Your task to perform on an android device: install app "Messenger Lite" Image 0: 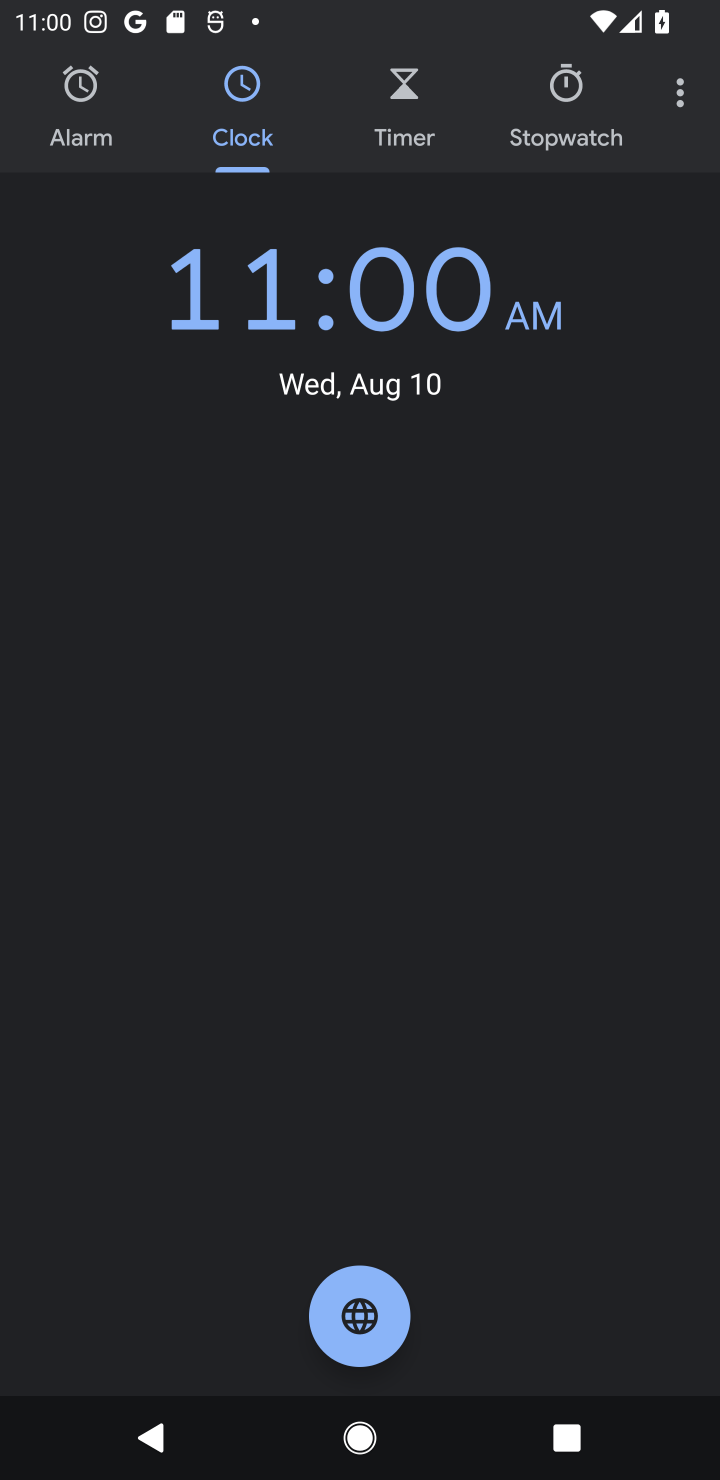
Step 0: press back button
Your task to perform on an android device: install app "Messenger Lite" Image 1: 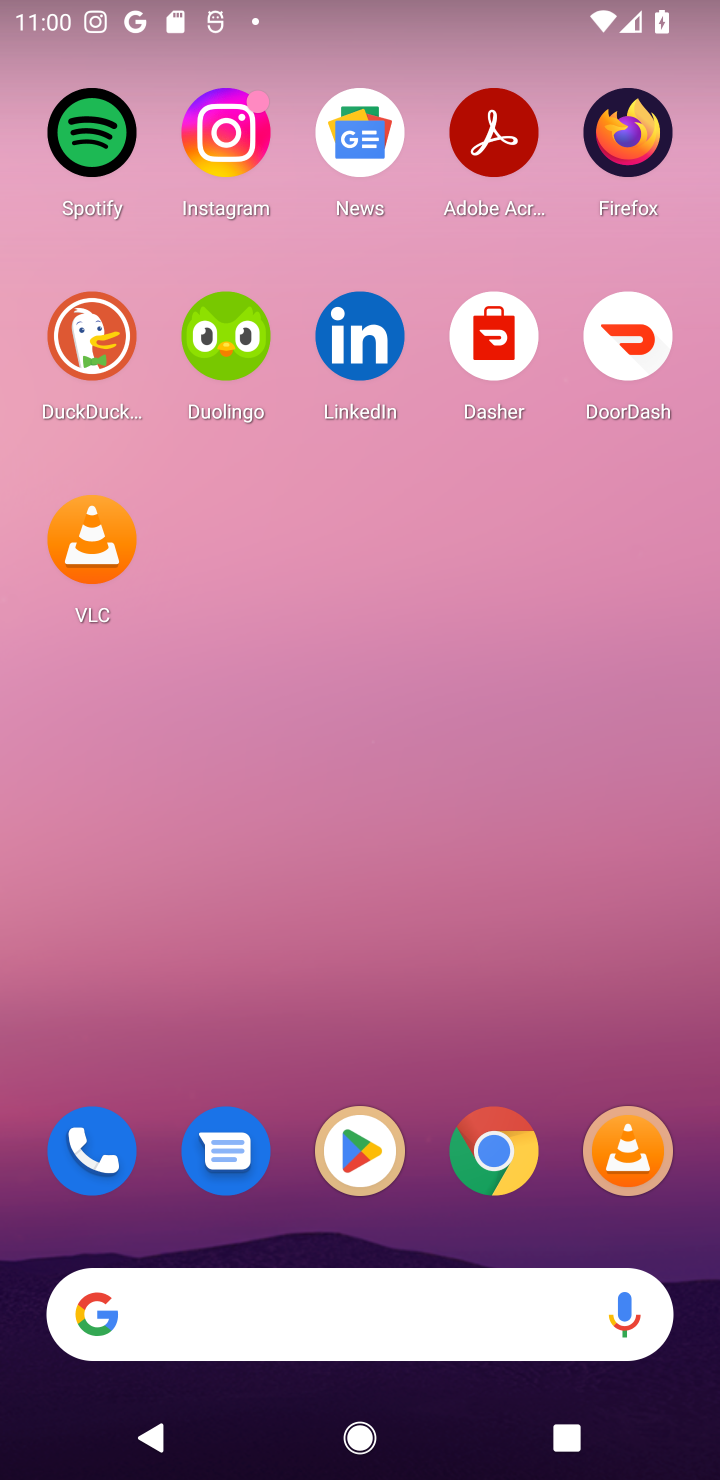
Step 1: drag from (286, 970) to (504, 124)
Your task to perform on an android device: install app "Messenger Lite" Image 2: 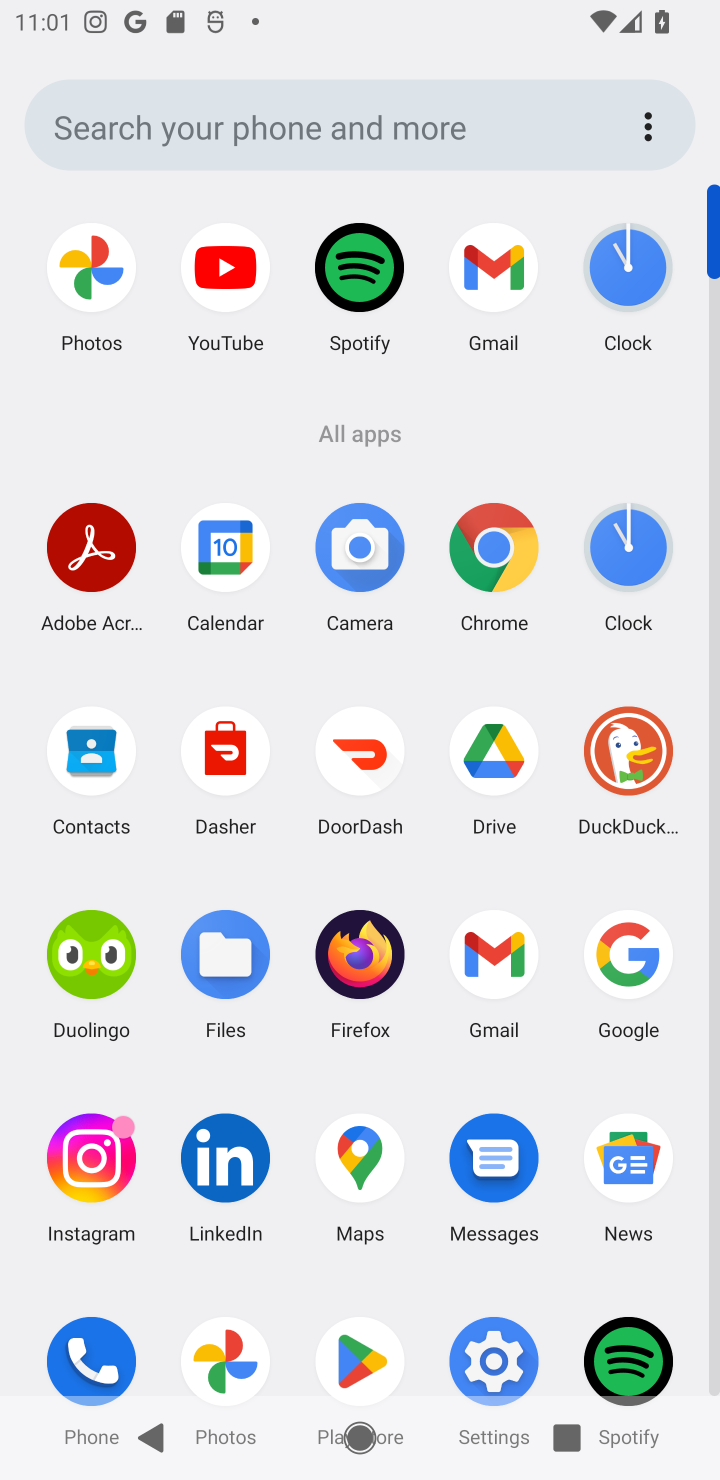
Step 2: drag from (291, 1196) to (397, 268)
Your task to perform on an android device: install app "Messenger Lite" Image 3: 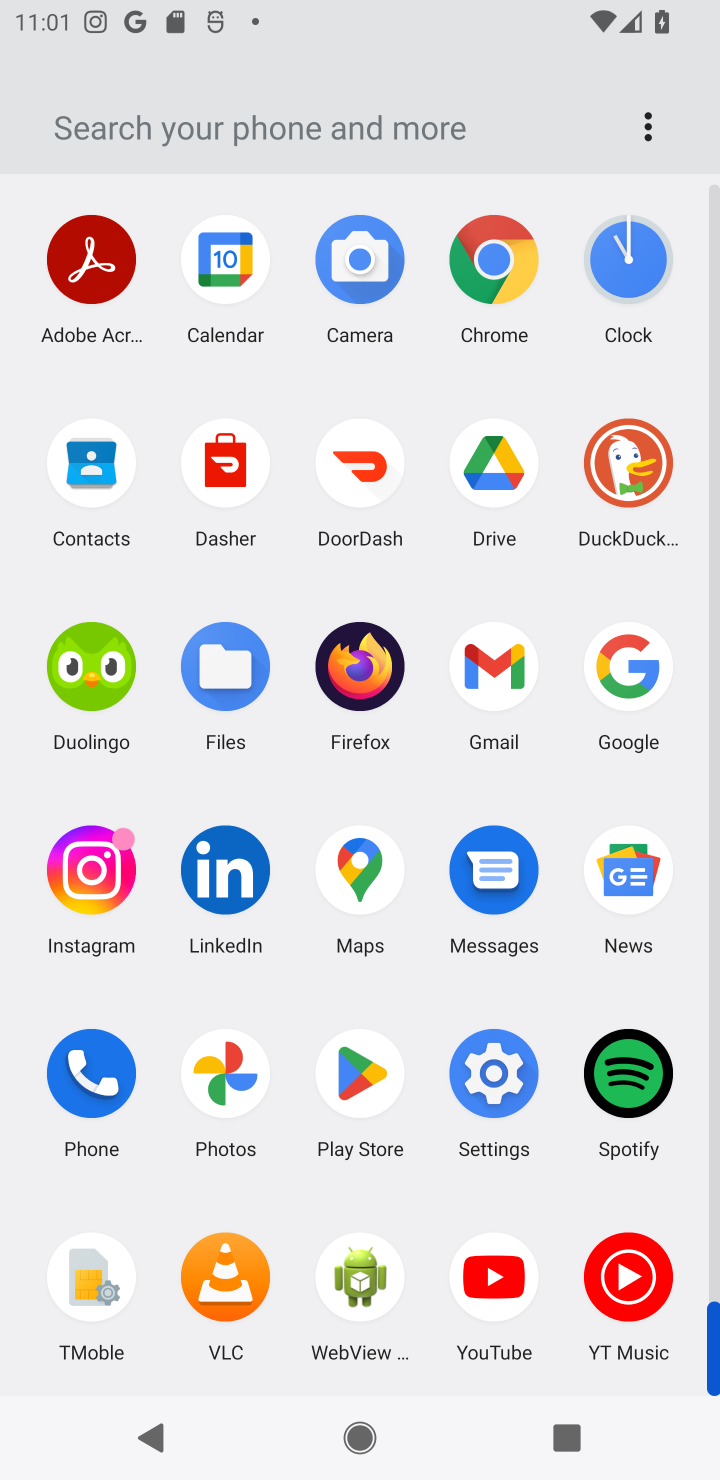
Step 3: click (364, 1078)
Your task to perform on an android device: install app "Messenger Lite" Image 4: 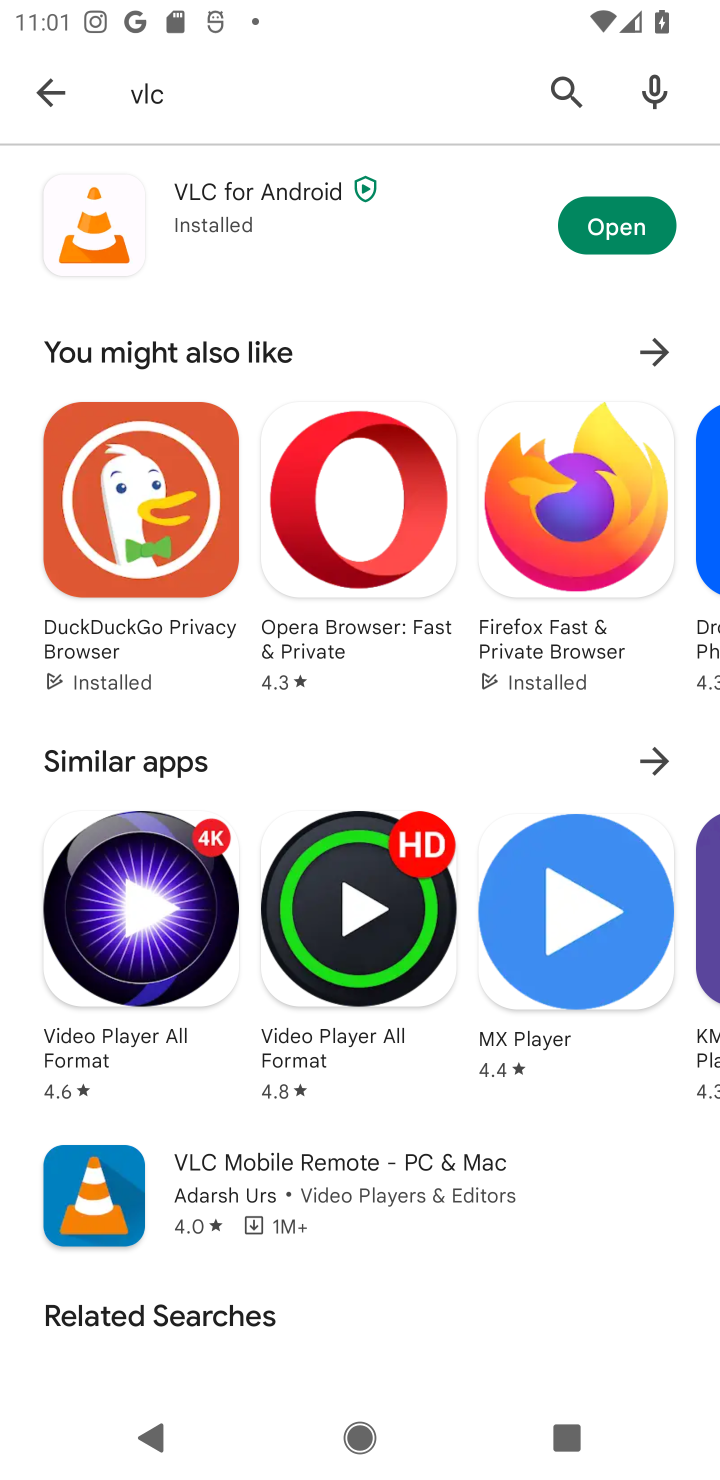
Step 4: click (577, 104)
Your task to perform on an android device: install app "Messenger Lite" Image 5: 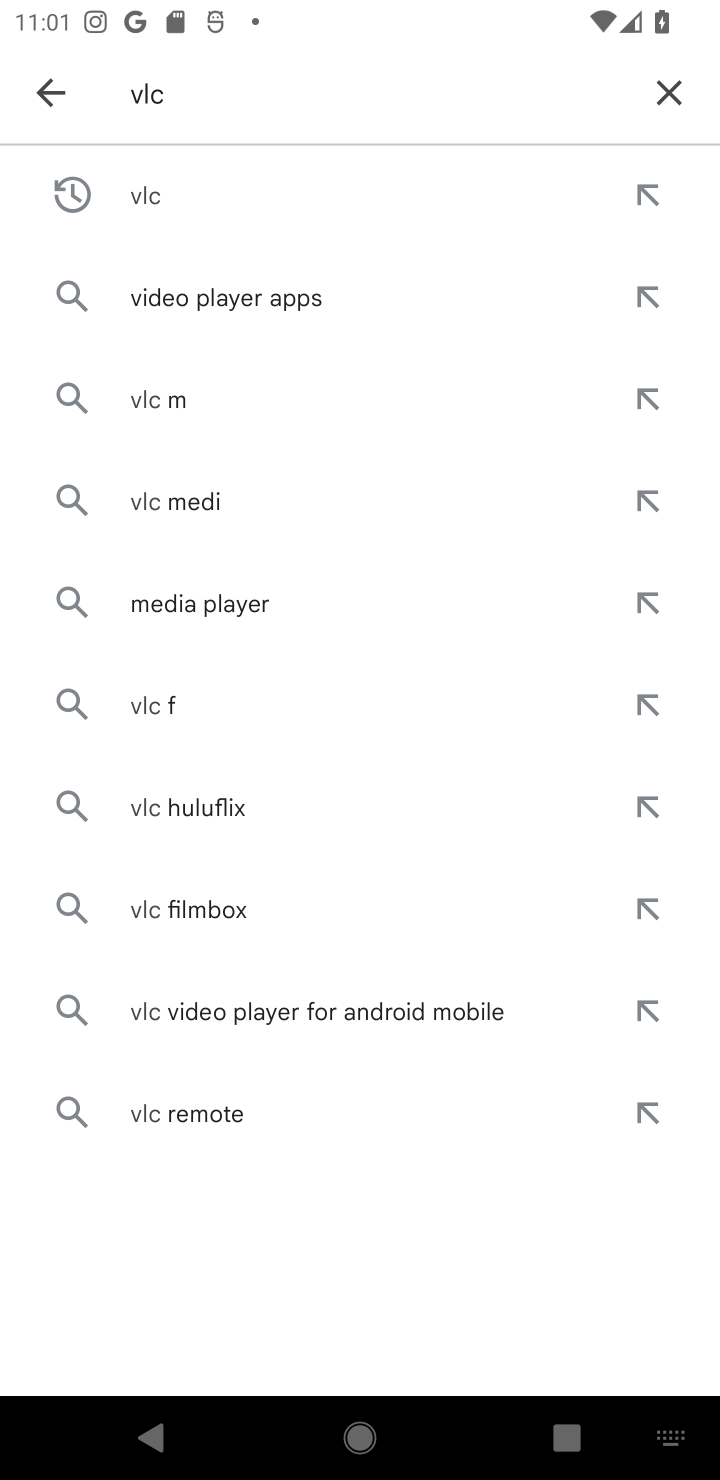
Step 5: click (655, 103)
Your task to perform on an android device: install app "Messenger Lite" Image 6: 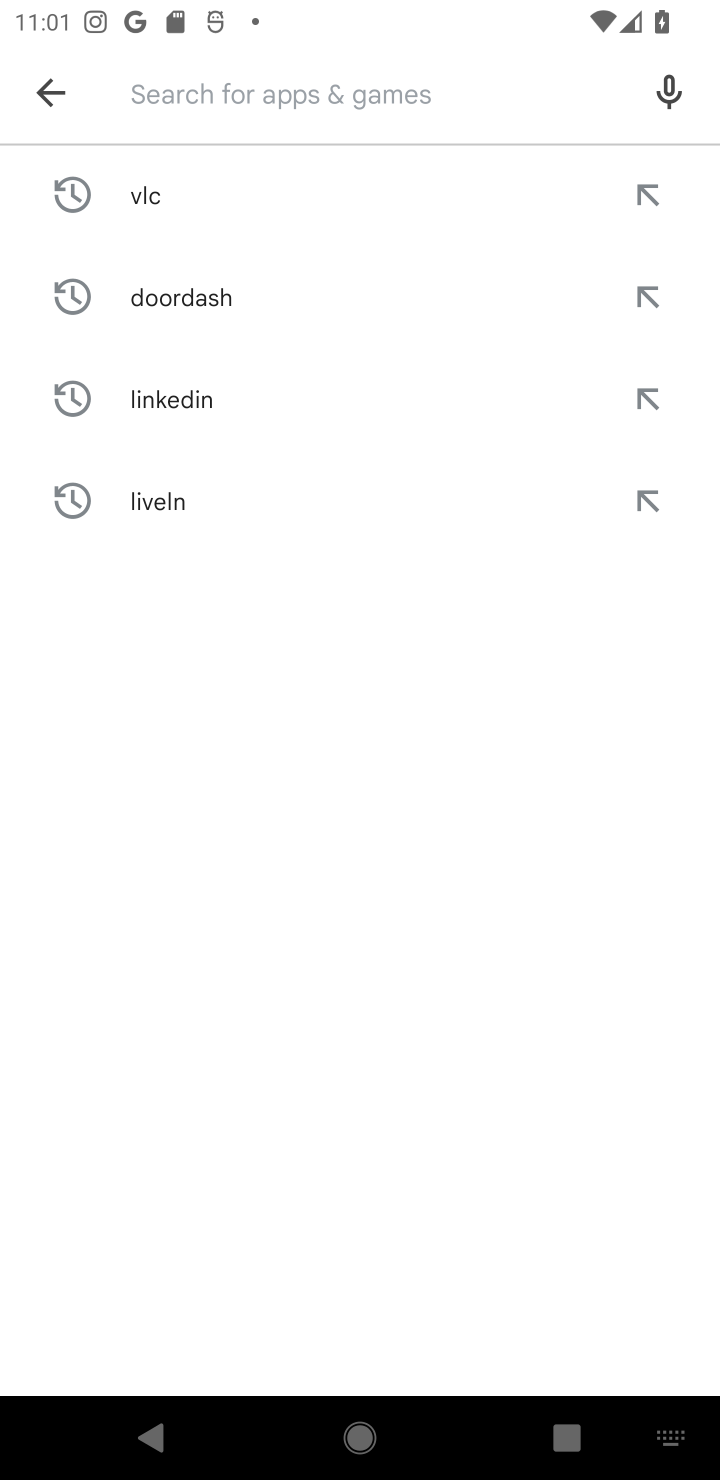
Step 6: click (346, 80)
Your task to perform on an android device: install app "Messenger Lite" Image 7: 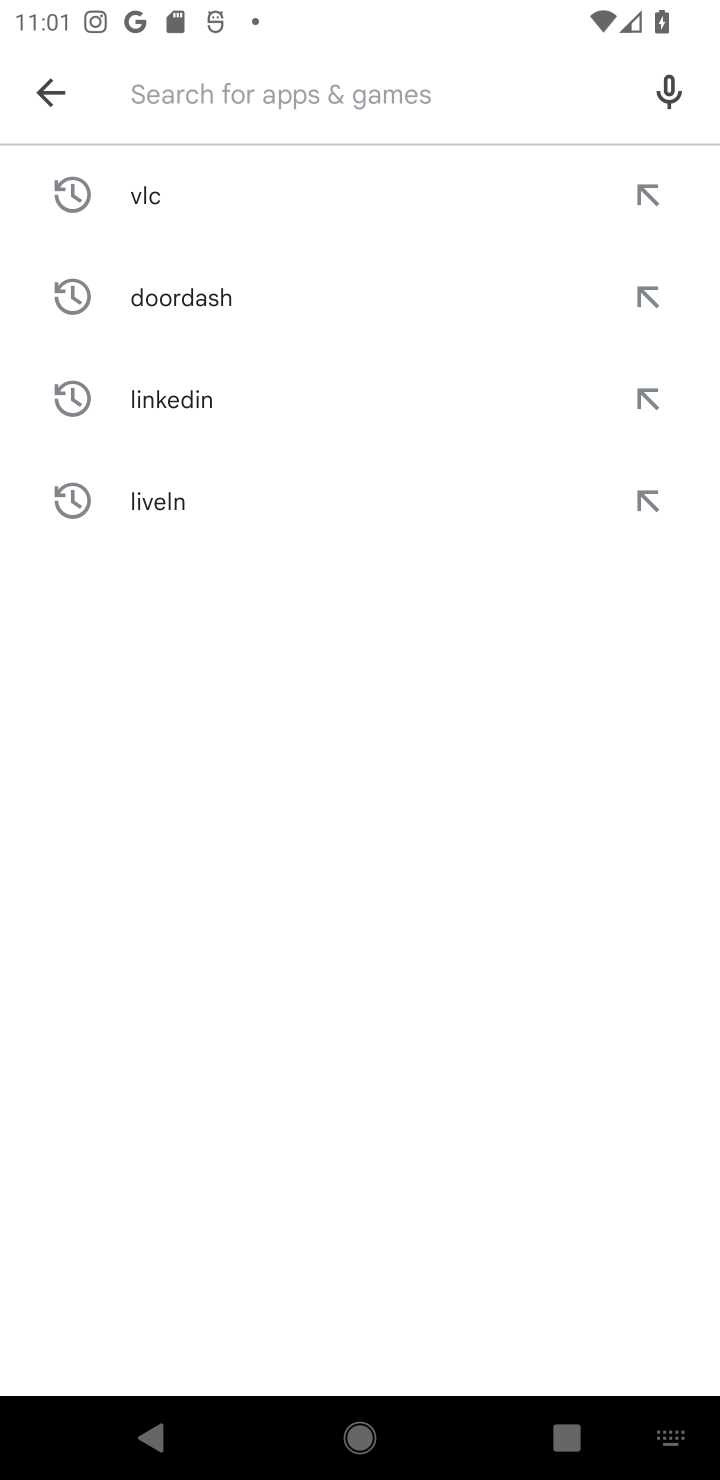
Step 7: click (226, 107)
Your task to perform on an android device: install app "Messenger Lite" Image 8: 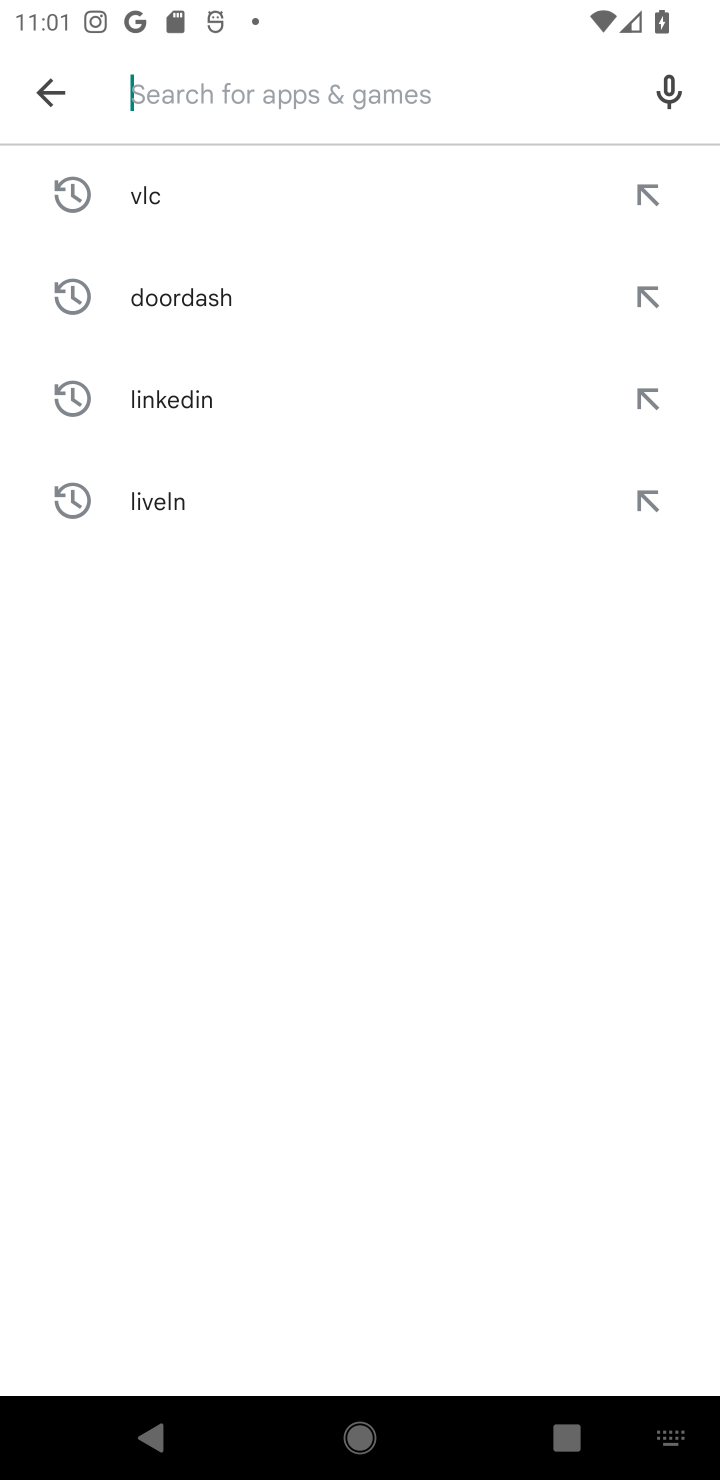
Step 8: type "Messenger Lite"
Your task to perform on an android device: install app "Messenger Lite" Image 9: 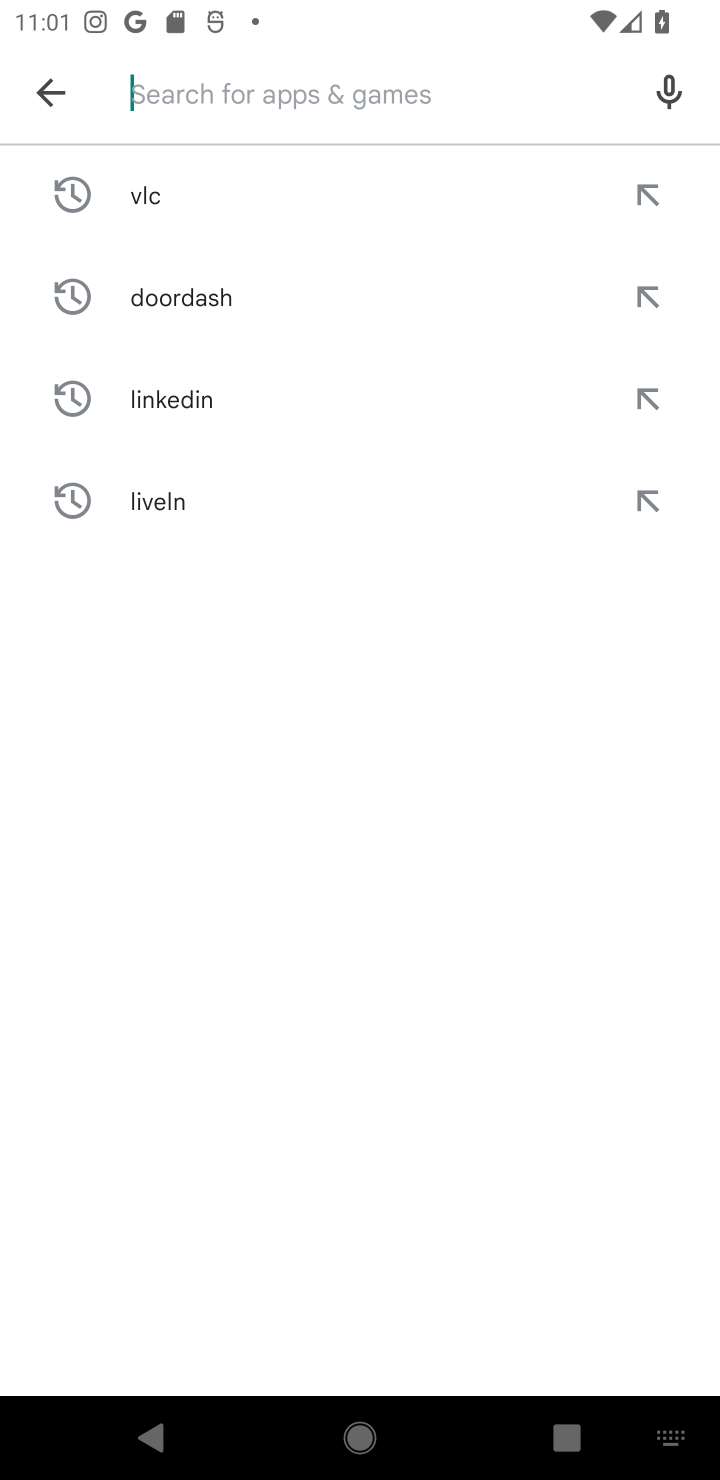
Step 9: click (410, 856)
Your task to perform on an android device: install app "Messenger Lite" Image 10: 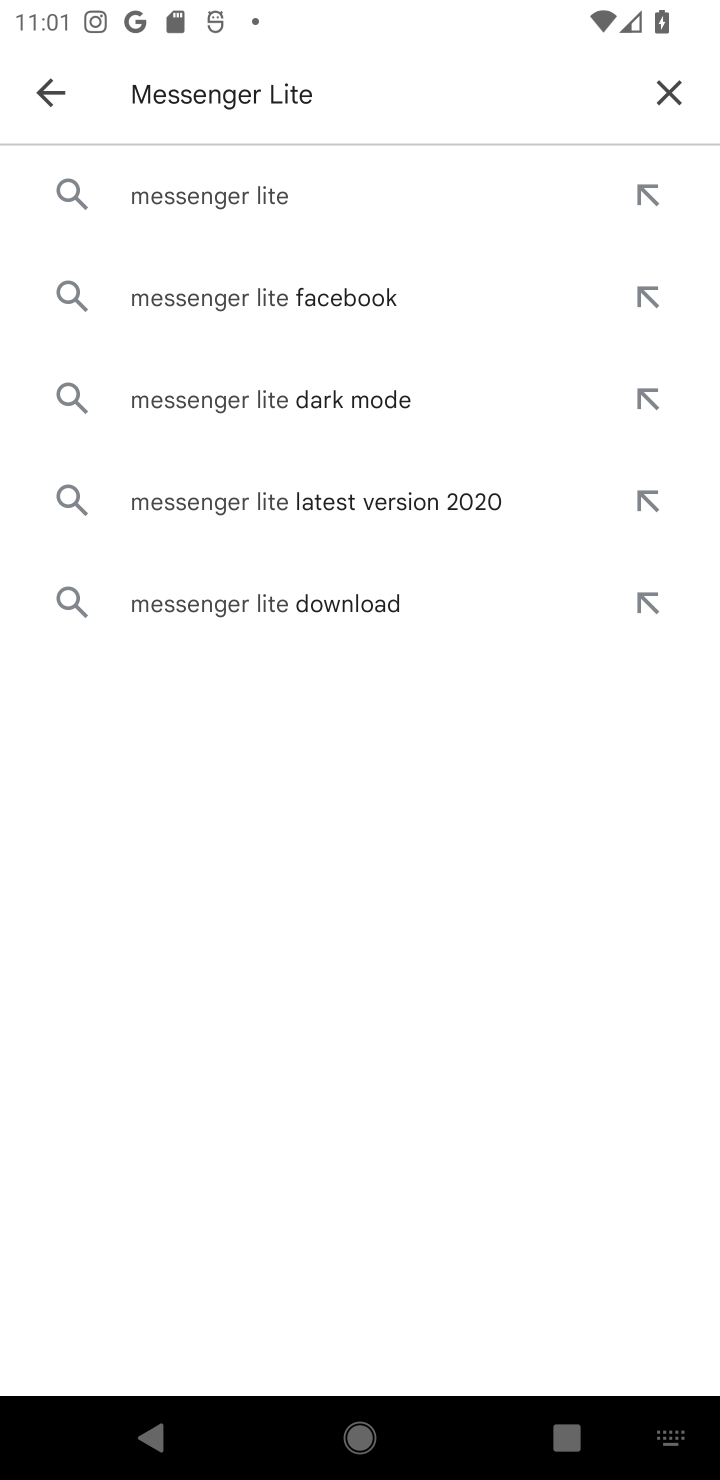
Step 10: click (263, 190)
Your task to perform on an android device: install app "Messenger Lite" Image 11: 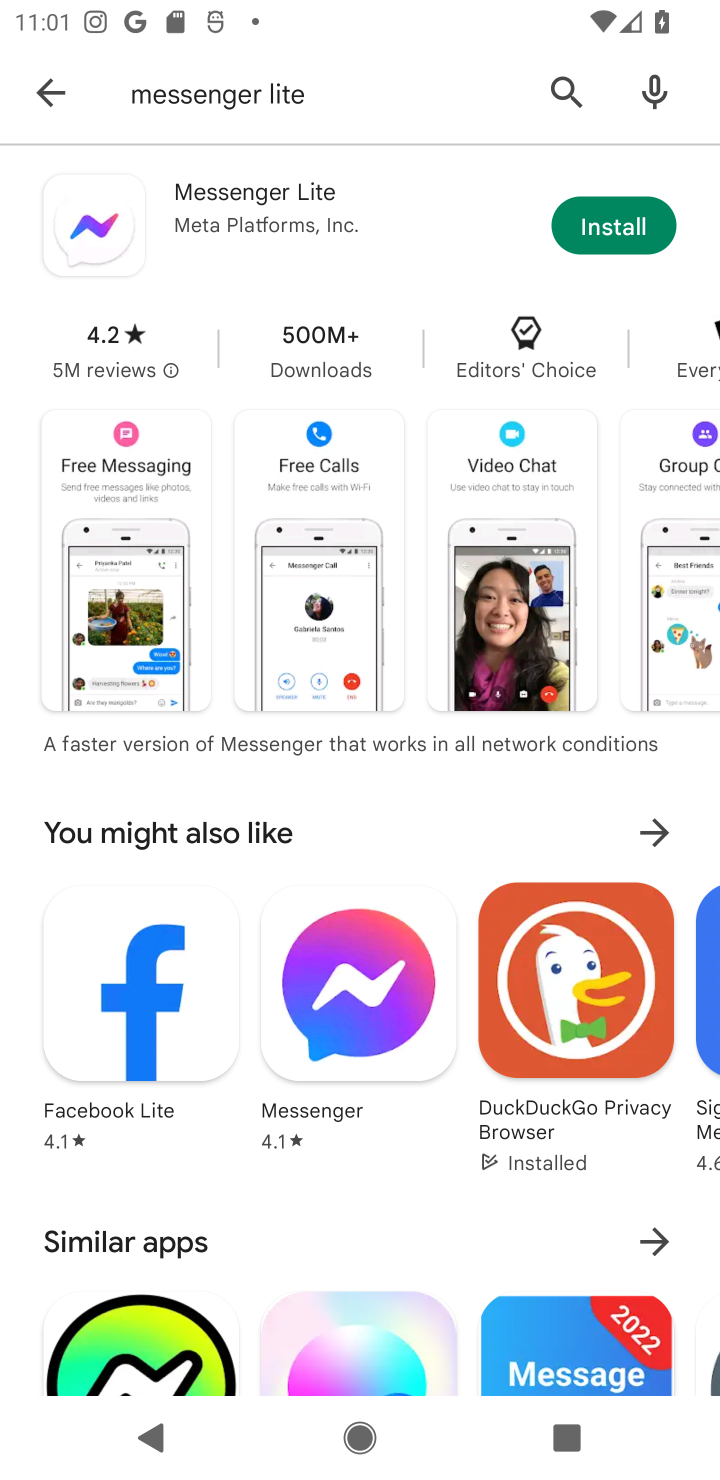
Step 11: click (623, 228)
Your task to perform on an android device: install app "Messenger Lite" Image 12: 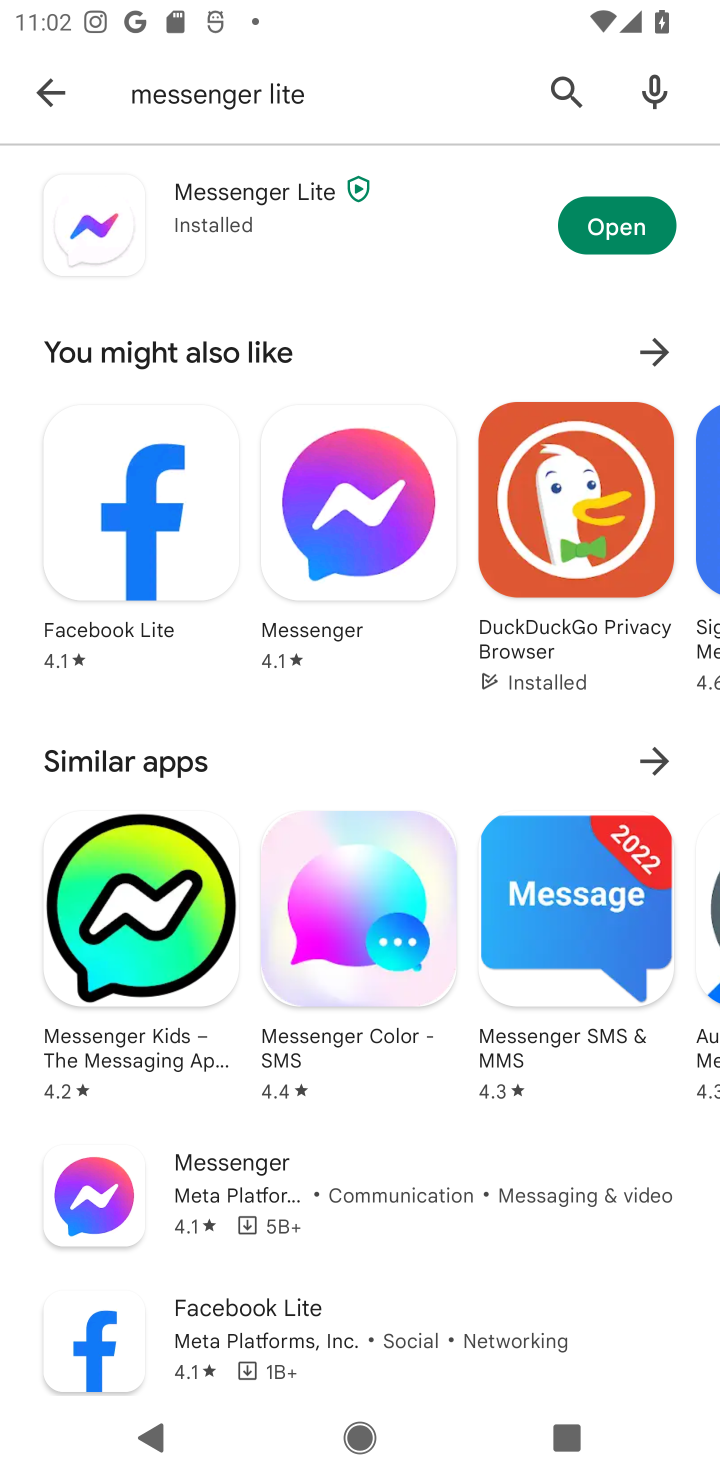
Step 12: task complete